Your task to perform on an android device: Go to Yahoo.com Image 0: 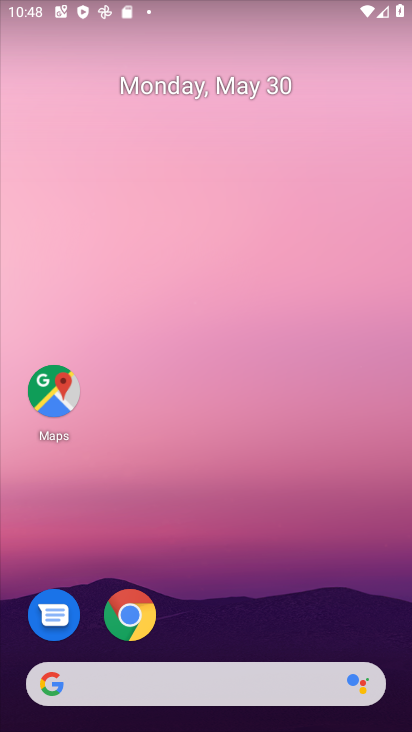
Step 0: click (143, 611)
Your task to perform on an android device: Go to Yahoo.com Image 1: 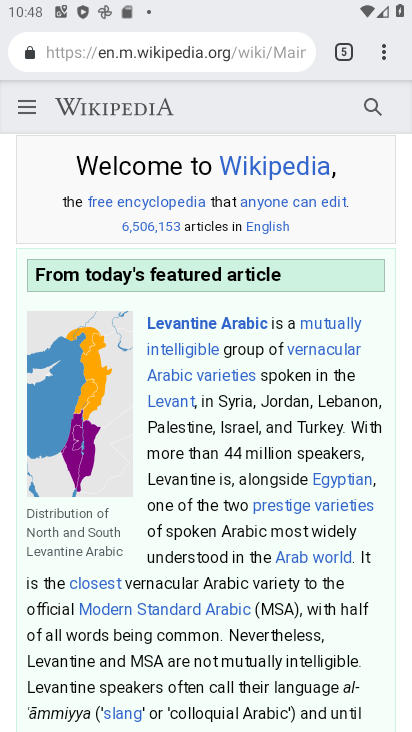
Step 1: click (344, 46)
Your task to perform on an android device: Go to Yahoo.com Image 2: 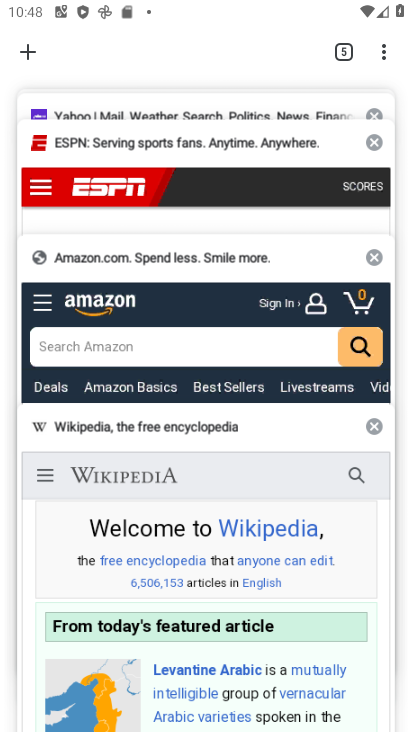
Step 2: click (169, 110)
Your task to perform on an android device: Go to Yahoo.com Image 3: 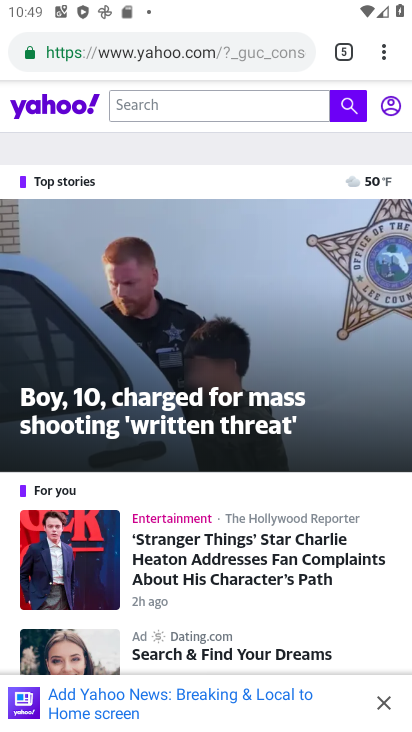
Step 3: task complete